Your task to perform on an android device: Open Chrome and go to settings Image 0: 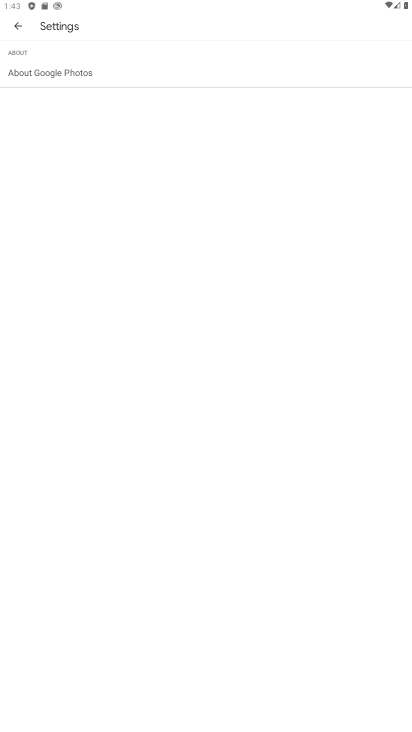
Step 0: press home button
Your task to perform on an android device: Open Chrome and go to settings Image 1: 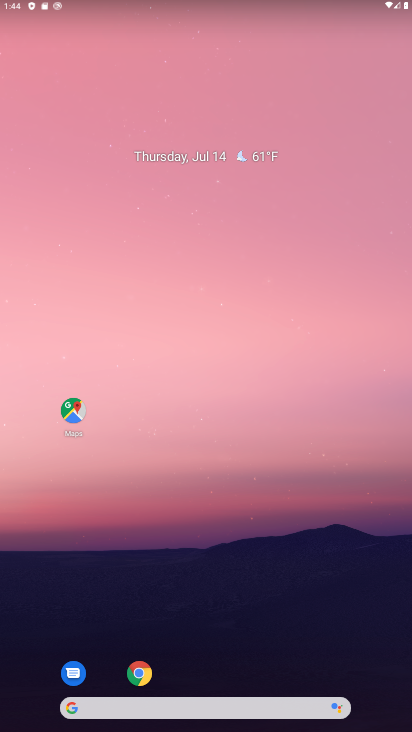
Step 1: click (146, 670)
Your task to perform on an android device: Open Chrome and go to settings Image 2: 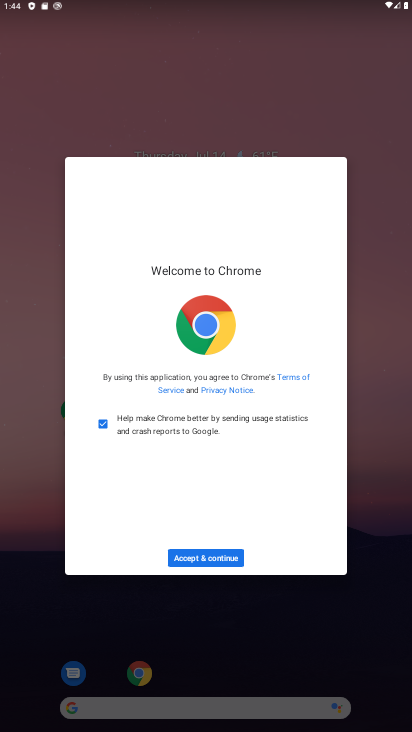
Step 2: click (221, 556)
Your task to perform on an android device: Open Chrome and go to settings Image 3: 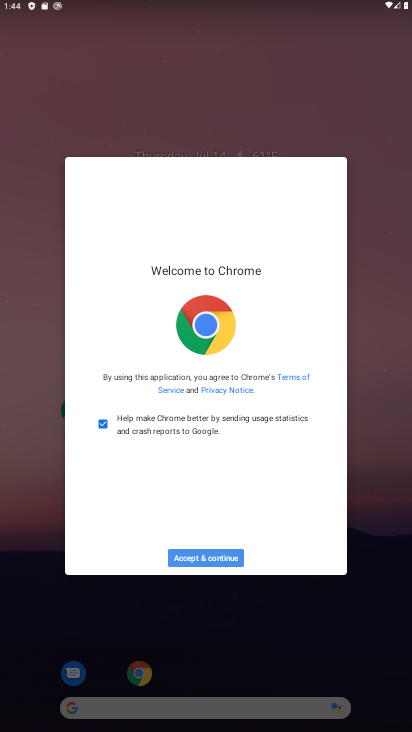
Step 3: click (221, 556)
Your task to perform on an android device: Open Chrome and go to settings Image 4: 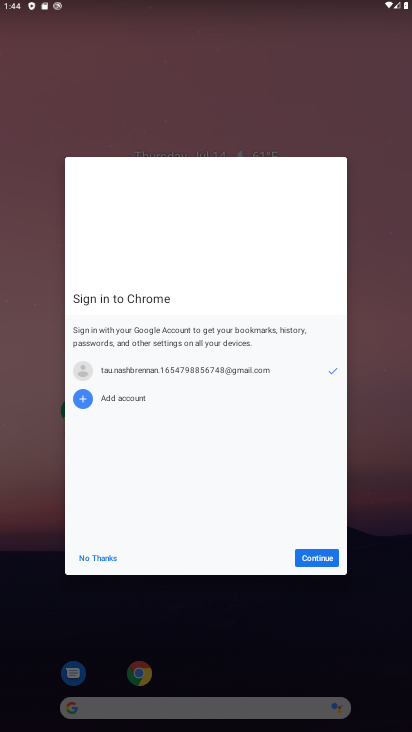
Step 4: click (316, 562)
Your task to perform on an android device: Open Chrome and go to settings Image 5: 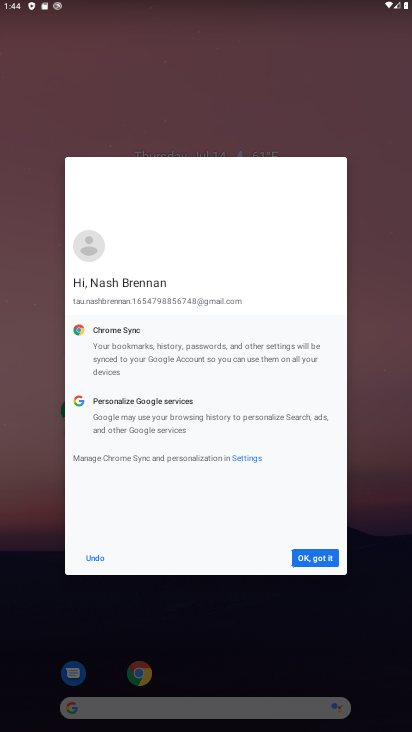
Step 5: click (316, 562)
Your task to perform on an android device: Open Chrome and go to settings Image 6: 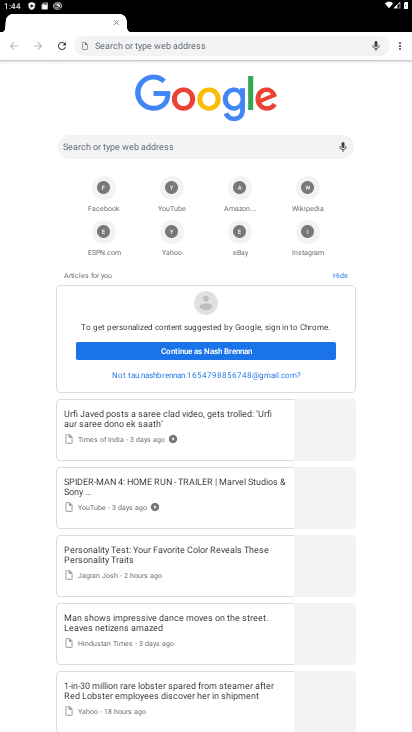
Step 6: click (316, 562)
Your task to perform on an android device: Open Chrome and go to settings Image 7: 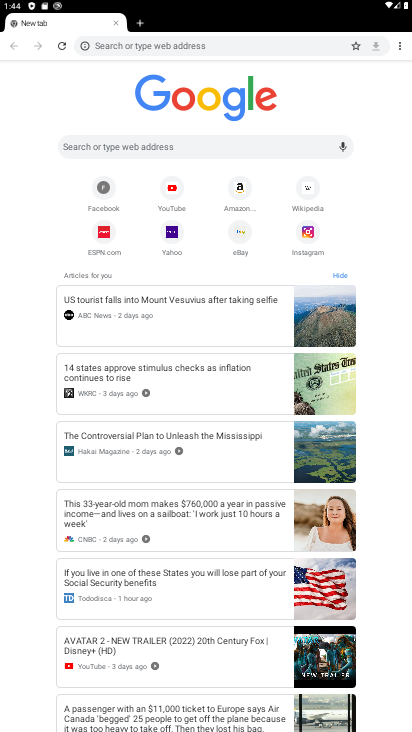
Step 7: click (404, 52)
Your task to perform on an android device: Open Chrome and go to settings Image 8: 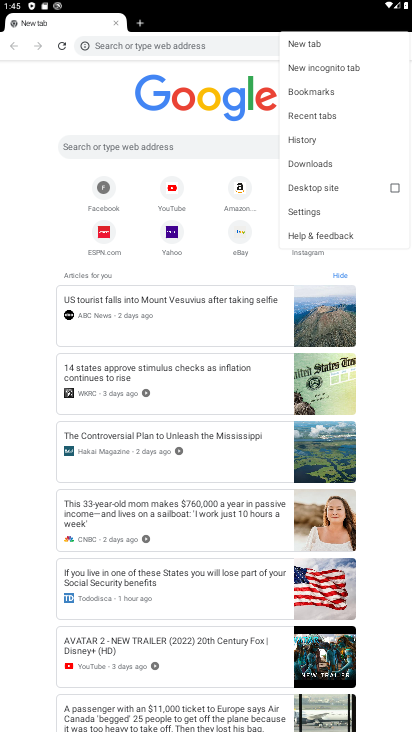
Step 8: click (320, 218)
Your task to perform on an android device: Open Chrome and go to settings Image 9: 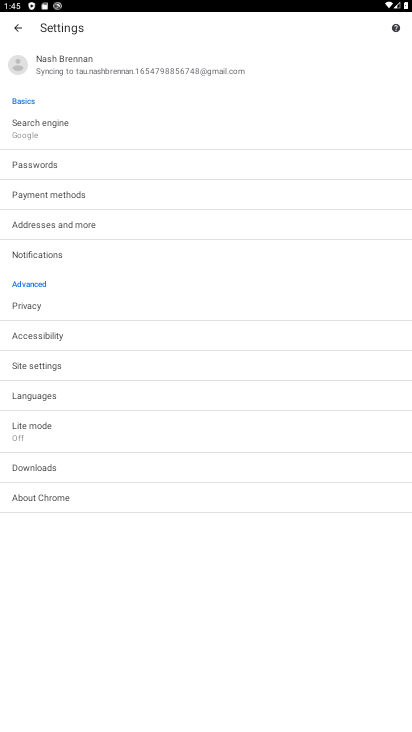
Step 9: task complete